Your task to perform on an android device: turn notification dots off Image 0: 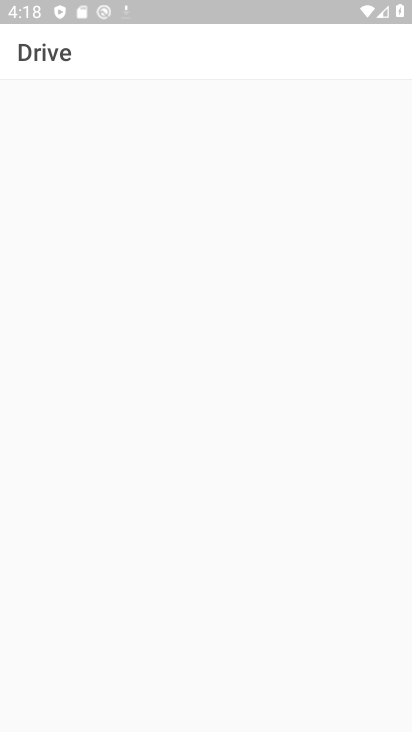
Step 0: press home button
Your task to perform on an android device: turn notification dots off Image 1: 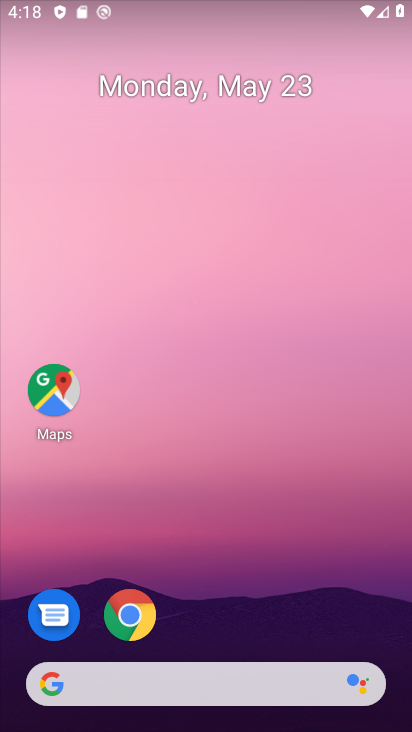
Step 1: drag from (229, 605) to (190, 72)
Your task to perform on an android device: turn notification dots off Image 2: 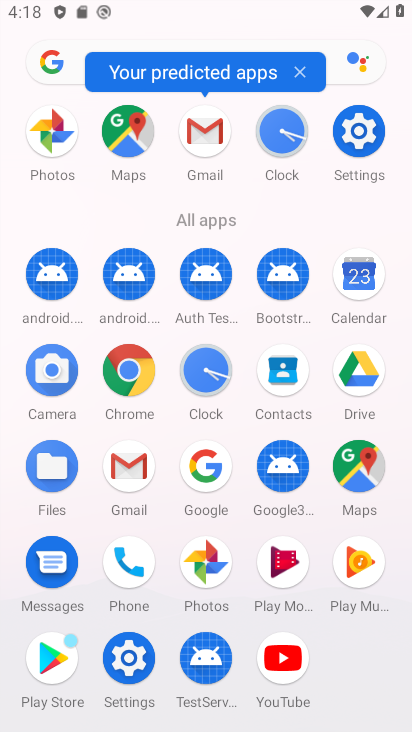
Step 2: click (368, 146)
Your task to perform on an android device: turn notification dots off Image 3: 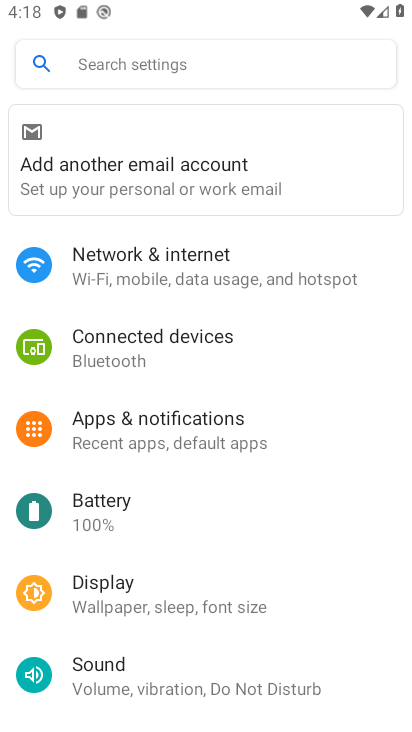
Step 3: drag from (306, 664) to (297, 390)
Your task to perform on an android device: turn notification dots off Image 4: 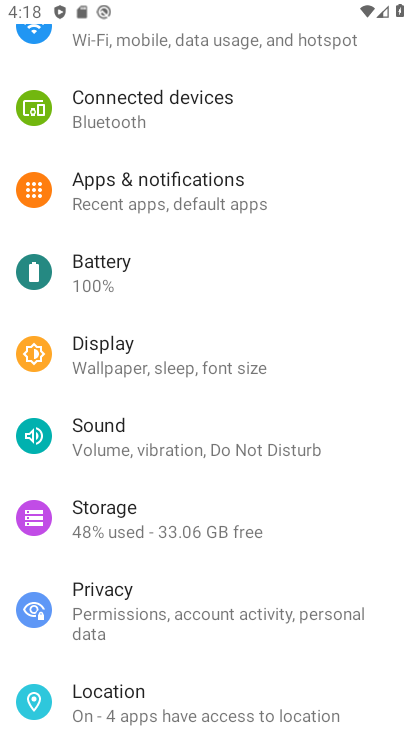
Step 4: click (128, 198)
Your task to perform on an android device: turn notification dots off Image 5: 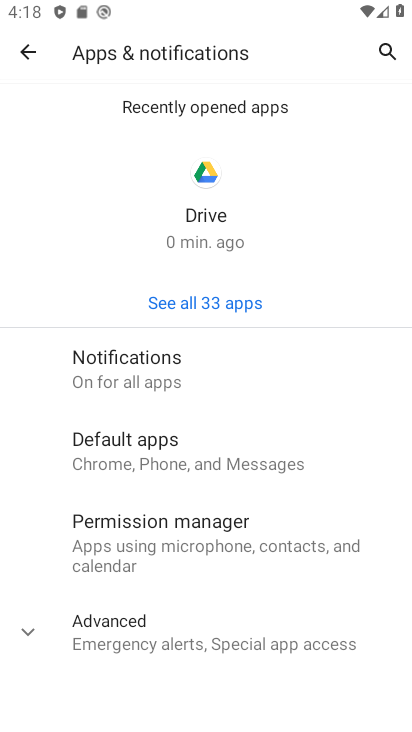
Step 5: click (147, 372)
Your task to perform on an android device: turn notification dots off Image 6: 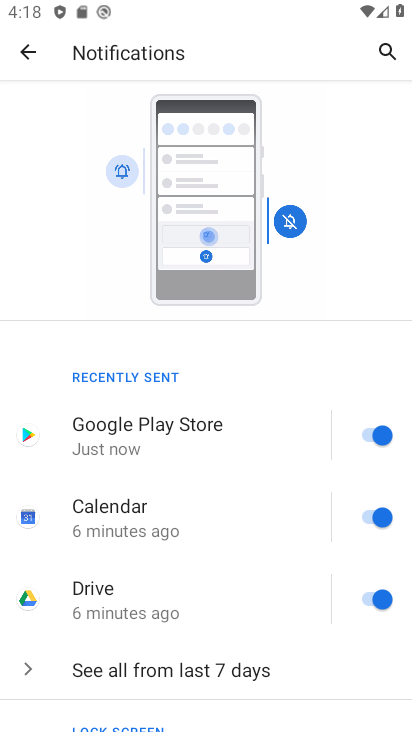
Step 6: drag from (310, 616) to (391, 260)
Your task to perform on an android device: turn notification dots off Image 7: 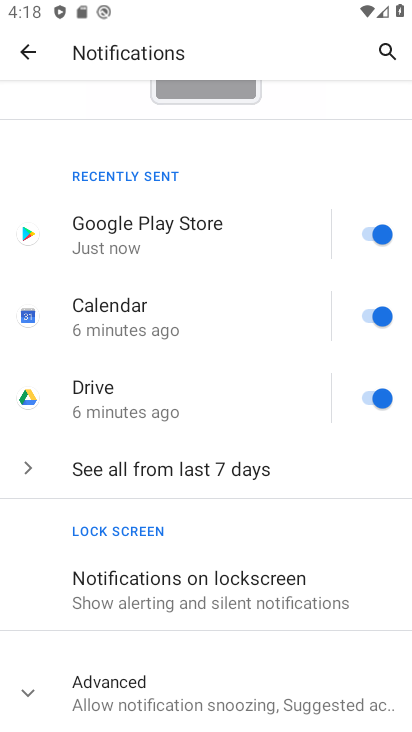
Step 7: click (134, 694)
Your task to perform on an android device: turn notification dots off Image 8: 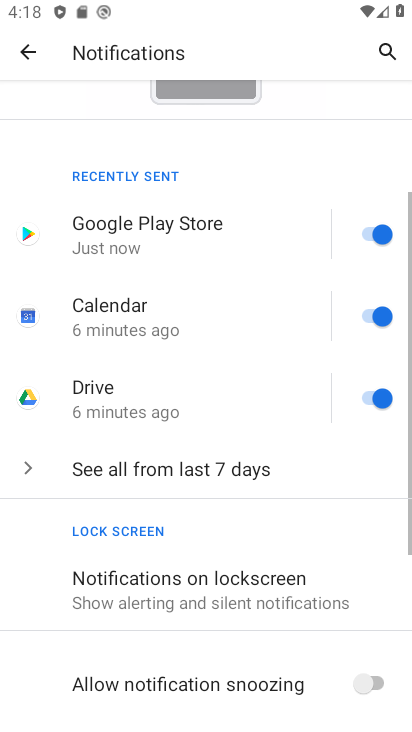
Step 8: drag from (248, 667) to (379, 308)
Your task to perform on an android device: turn notification dots off Image 9: 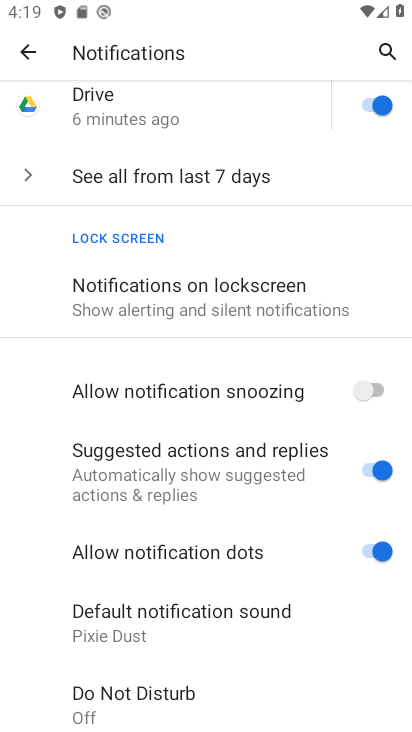
Step 9: click (376, 543)
Your task to perform on an android device: turn notification dots off Image 10: 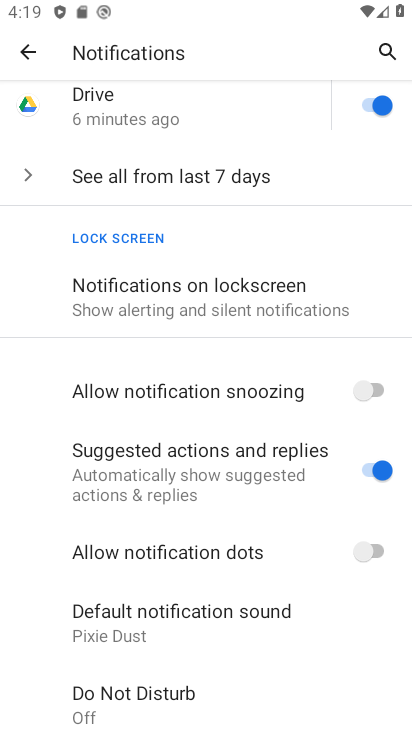
Step 10: task complete